Your task to perform on an android device: Go to location settings Image 0: 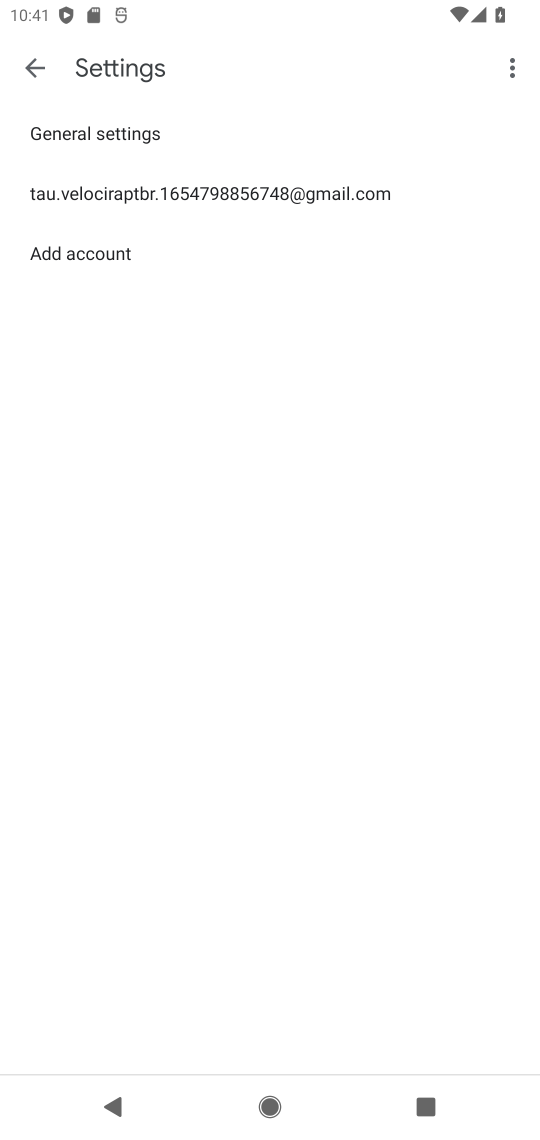
Step 0: click (26, 61)
Your task to perform on an android device: Go to location settings Image 1: 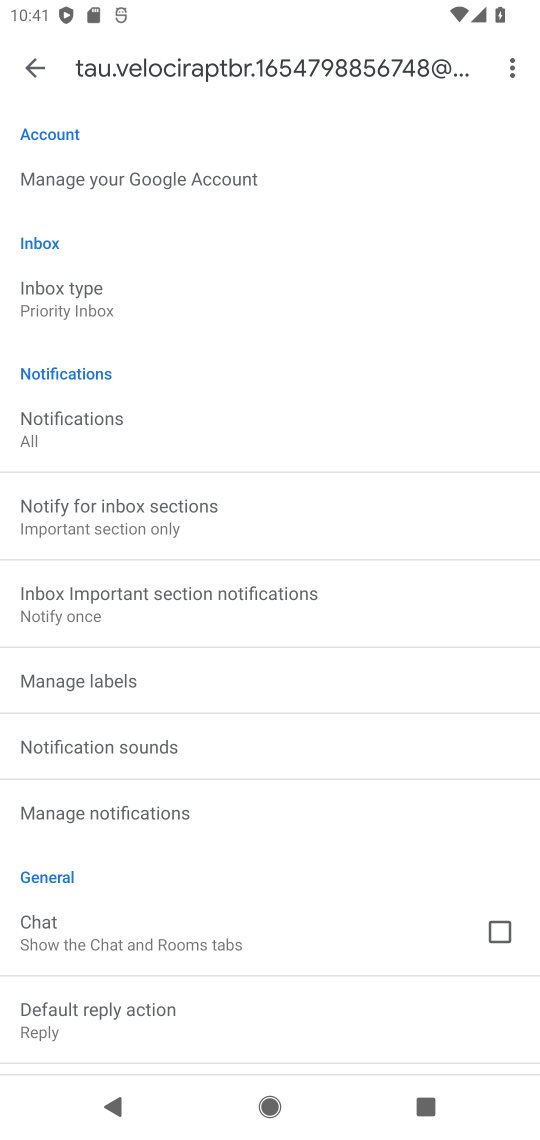
Step 1: drag from (176, 836) to (305, 141)
Your task to perform on an android device: Go to location settings Image 2: 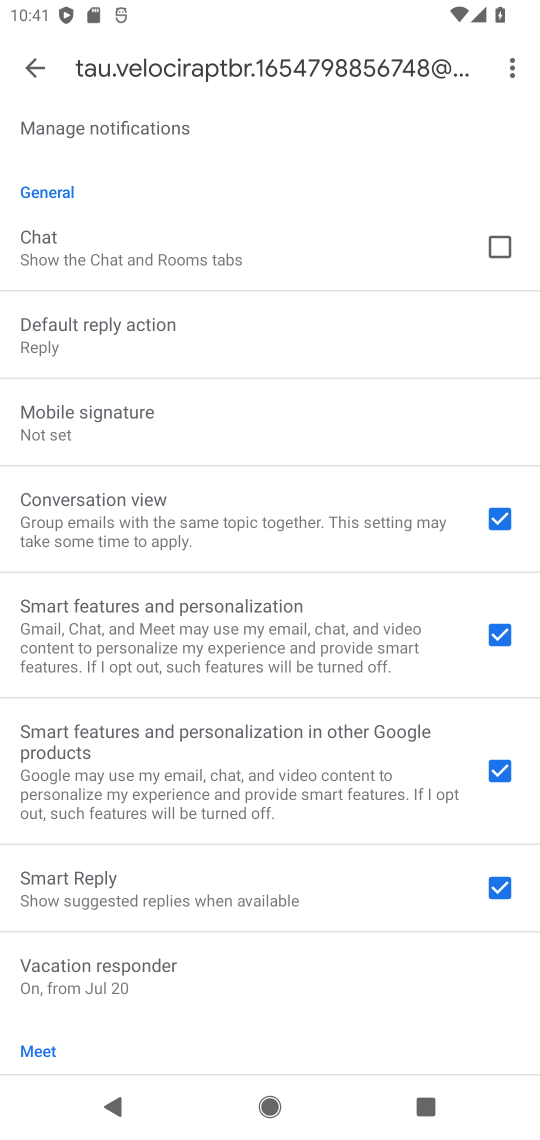
Step 2: drag from (234, 359) to (80, 1122)
Your task to perform on an android device: Go to location settings Image 3: 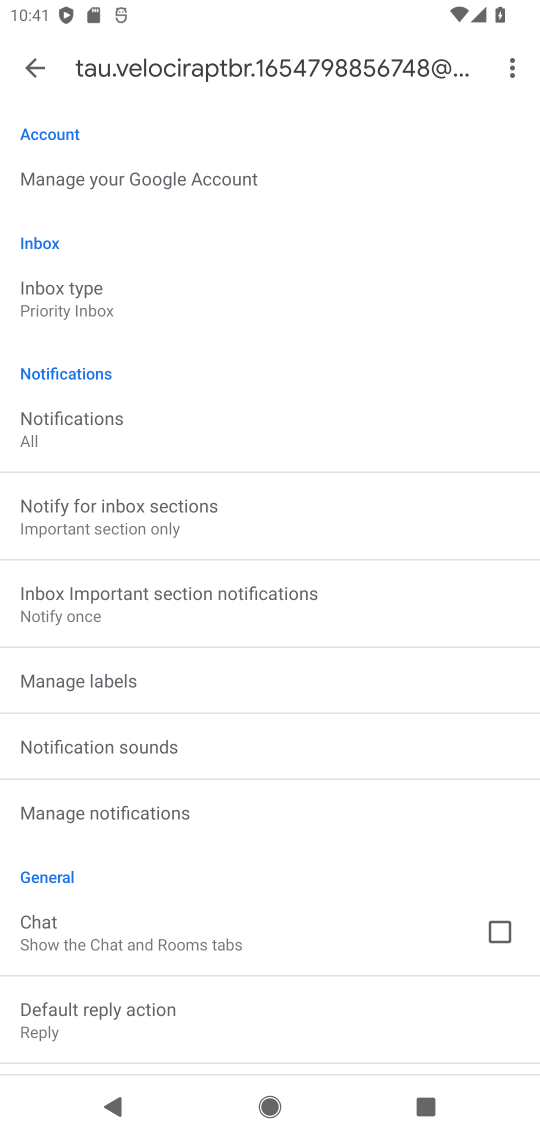
Step 3: drag from (316, 343) to (264, 968)
Your task to perform on an android device: Go to location settings Image 4: 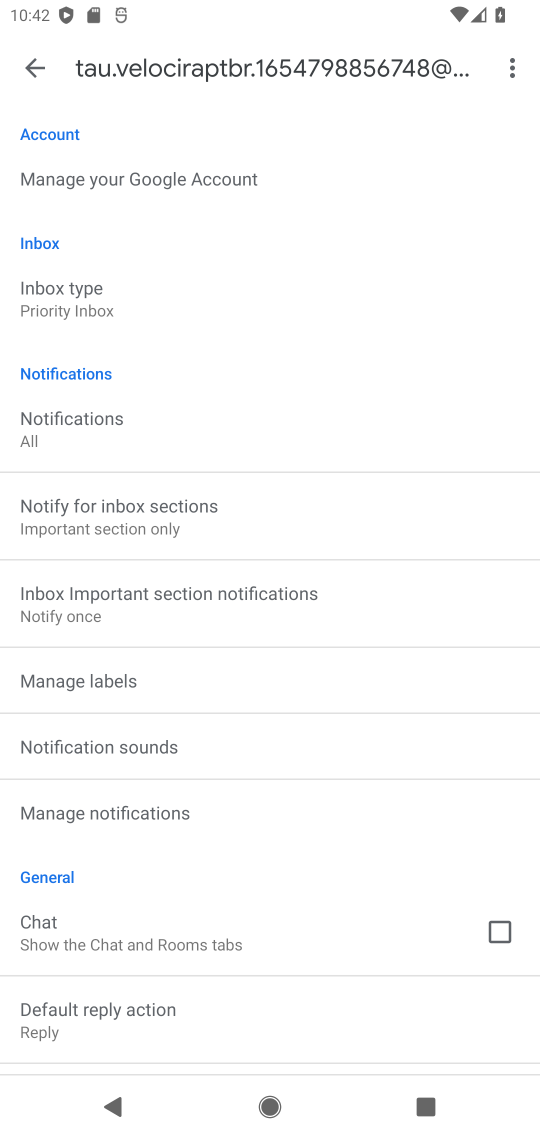
Step 4: drag from (126, 432) to (76, 1124)
Your task to perform on an android device: Go to location settings Image 5: 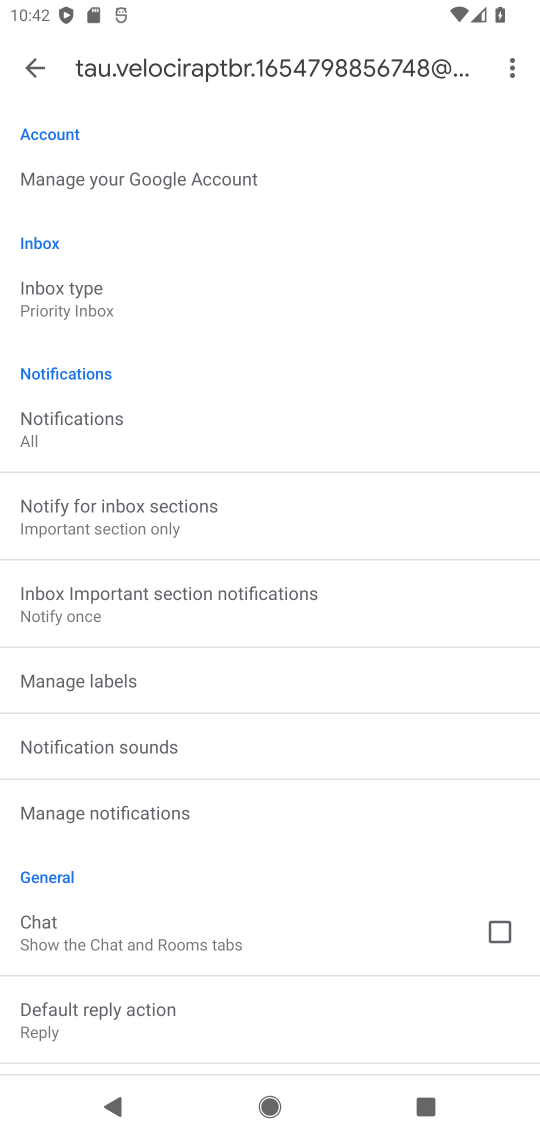
Step 5: drag from (240, 905) to (325, 296)
Your task to perform on an android device: Go to location settings Image 6: 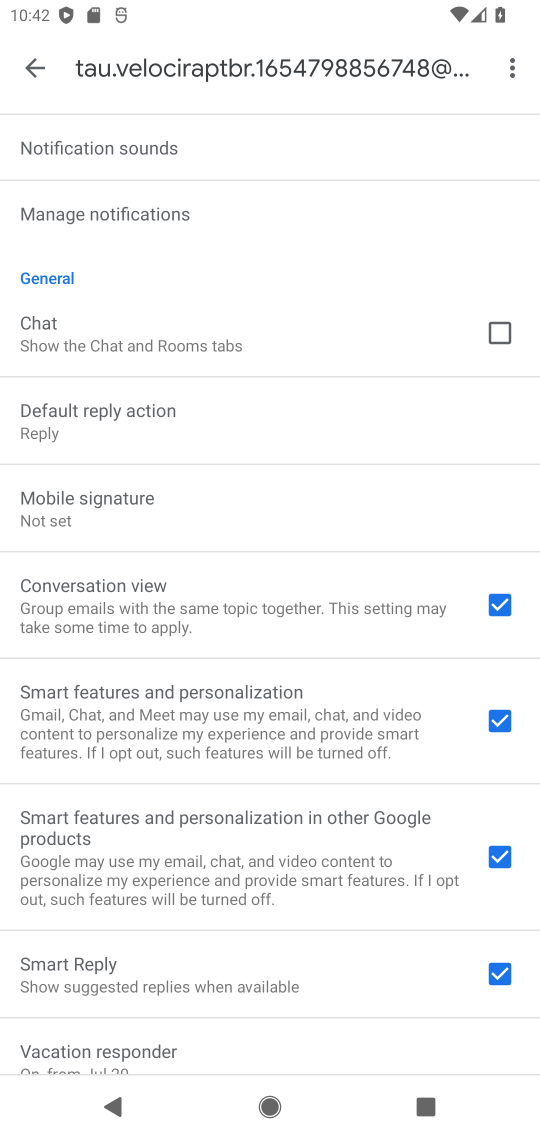
Step 6: press back button
Your task to perform on an android device: Go to location settings Image 7: 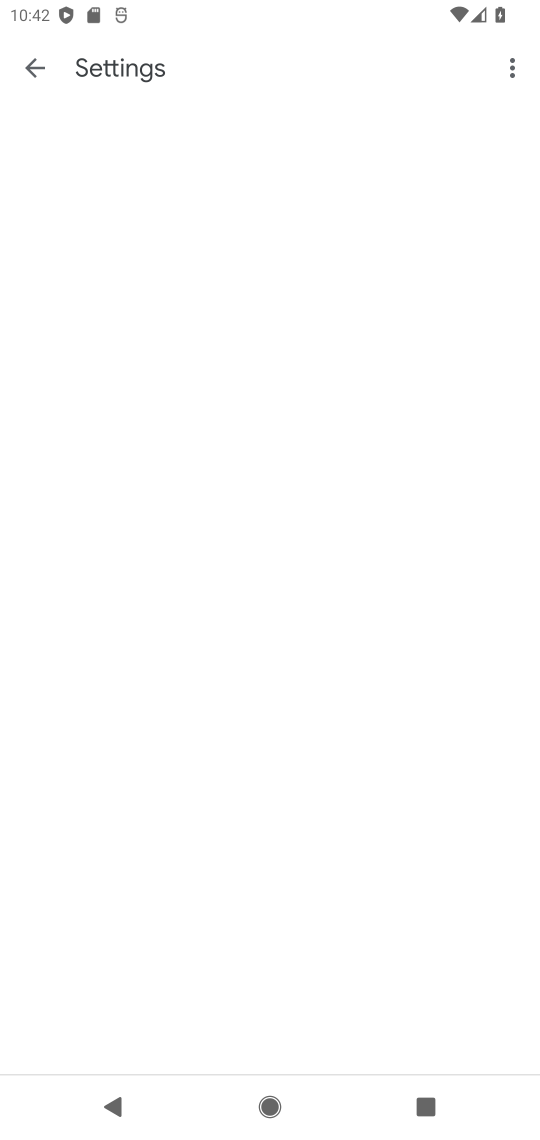
Step 7: press back button
Your task to perform on an android device: Go to location settings Image 8: 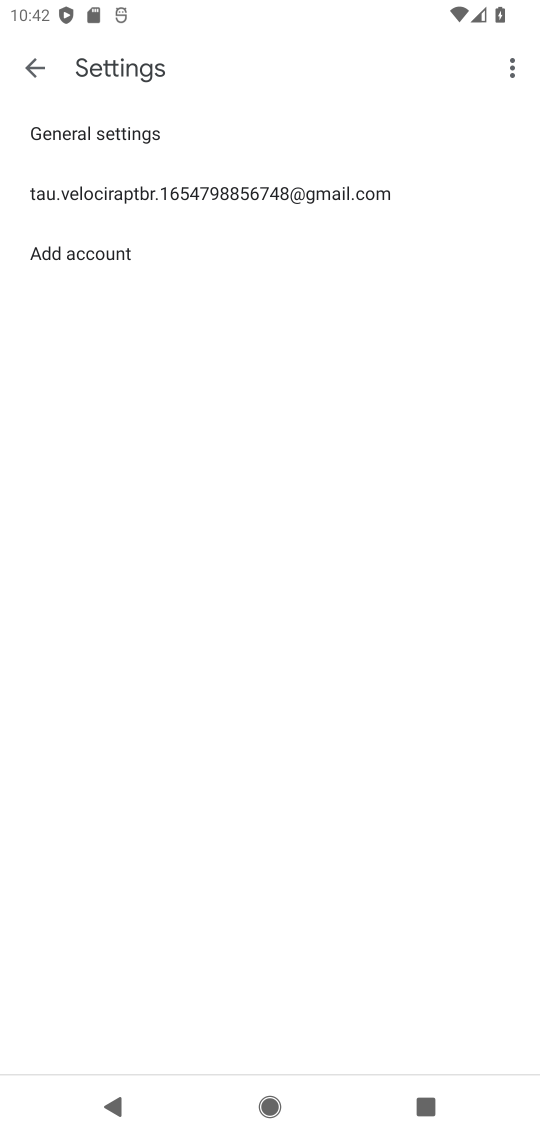
Step 8: press back button
Your task to perform on an android device: Go to location settings Image 9: 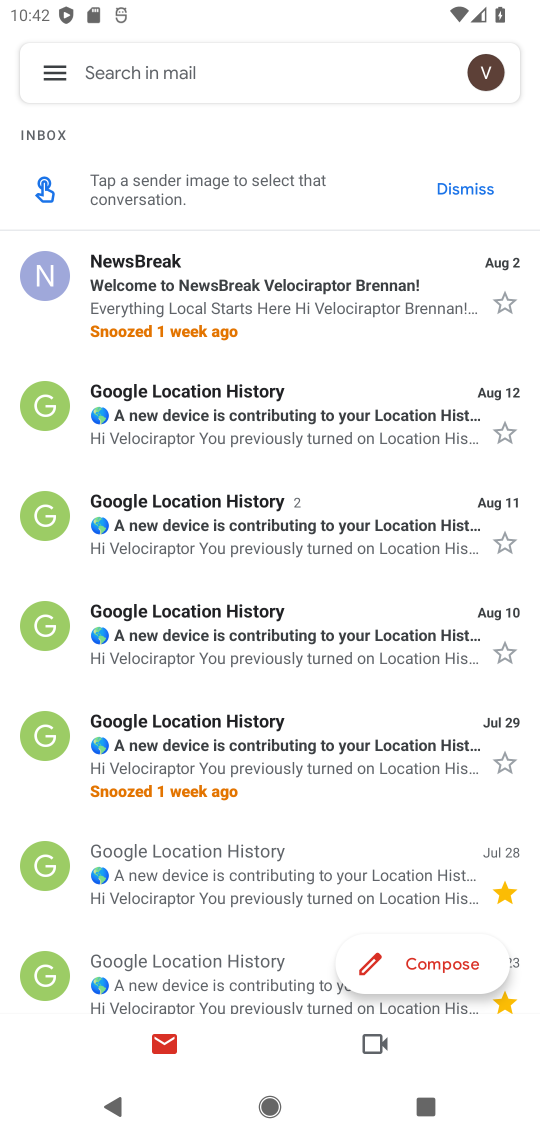
Step 9: press home button
Your task to perform on an android device: Go to location settings Image 10: 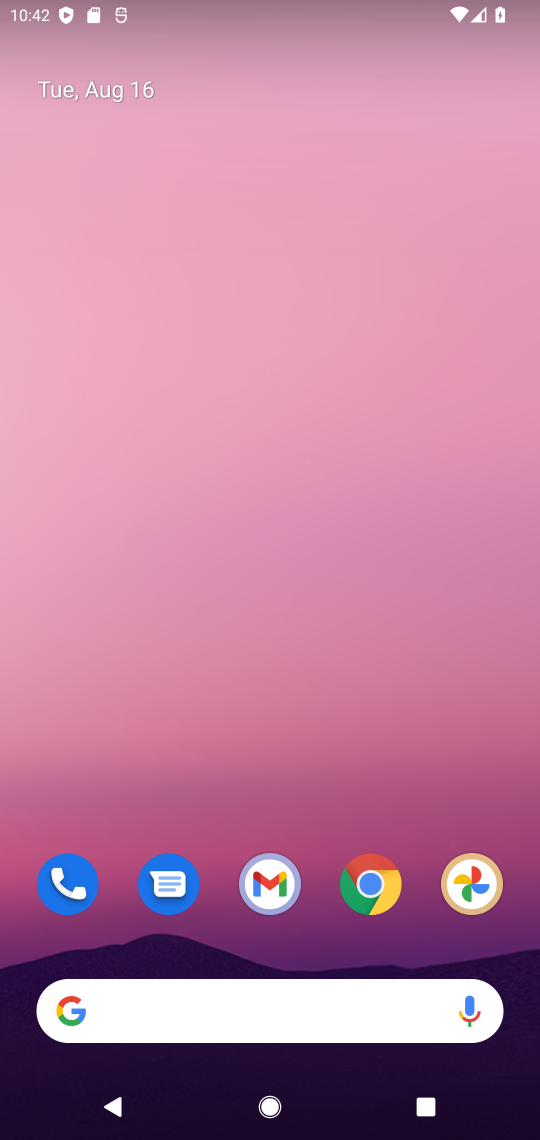
Step 10: drag from (268, 659) to (268, 377)
Your task to perform on an android device: Go to location settings Image 11: 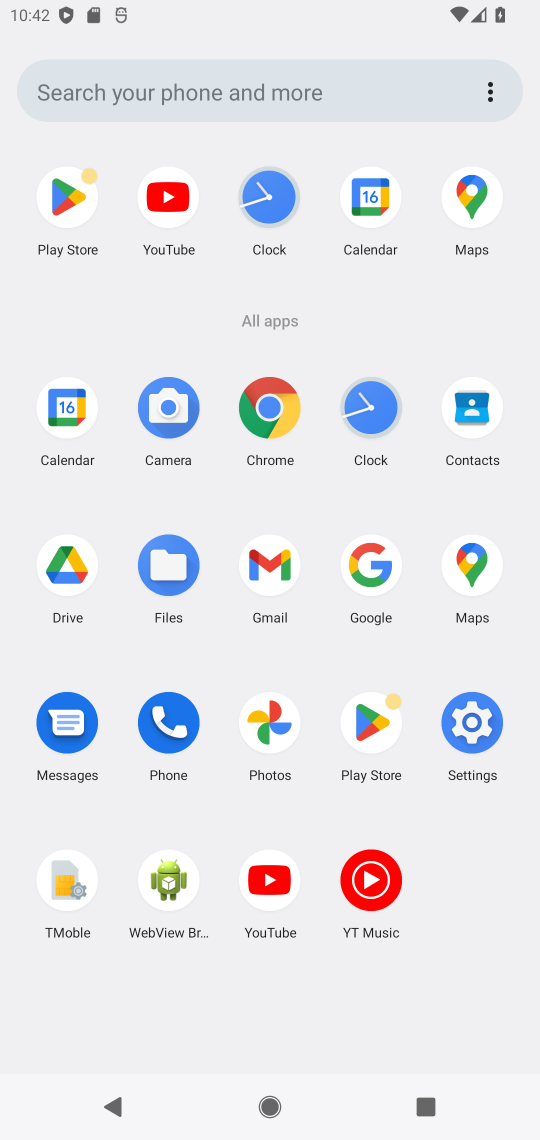
Step 11: click (464, 718)
Your task to perform on an android device: Go to location settings Image 12: 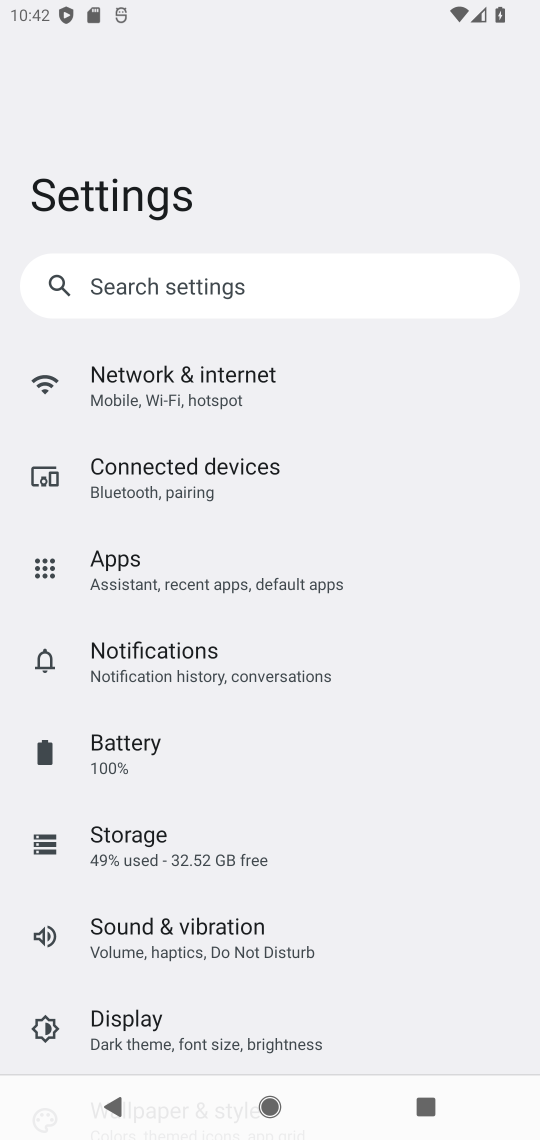
Step 12: click (191, 377)
Your task to perform on an android device: Go to location settings Image 13: 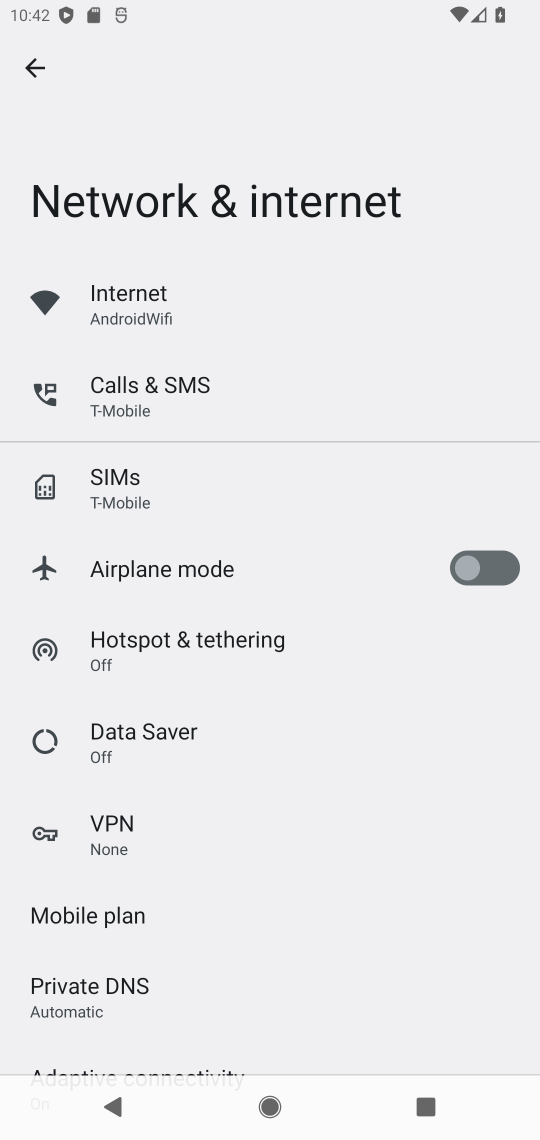
Step 13: click (46, 90)
Your task to perform on an android device: Go to location settings Image 14: 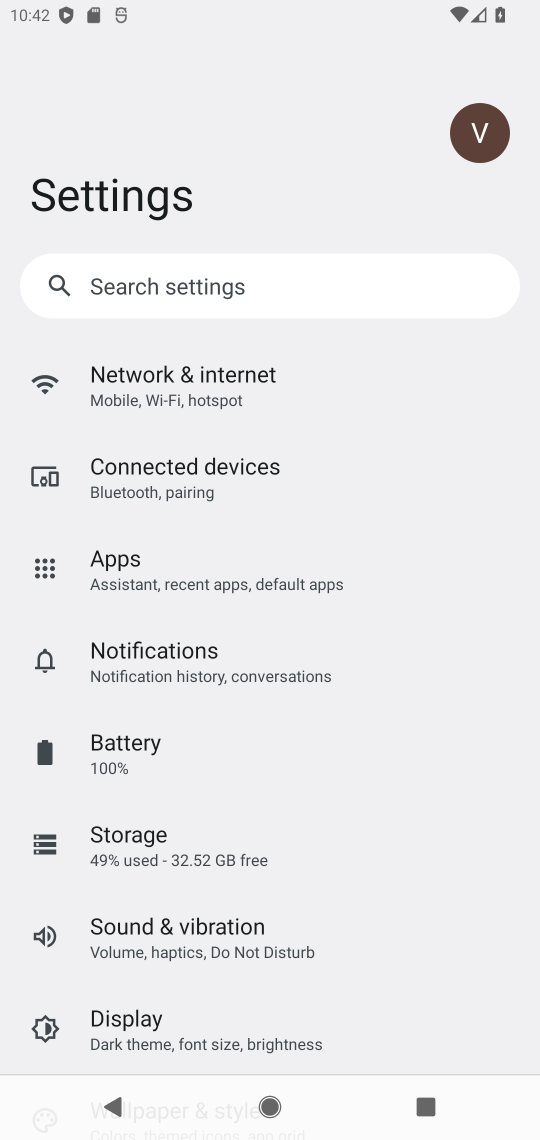
Step 14: click (30, 70)
Your task to perform on an android device: Go to location settings Image 15: 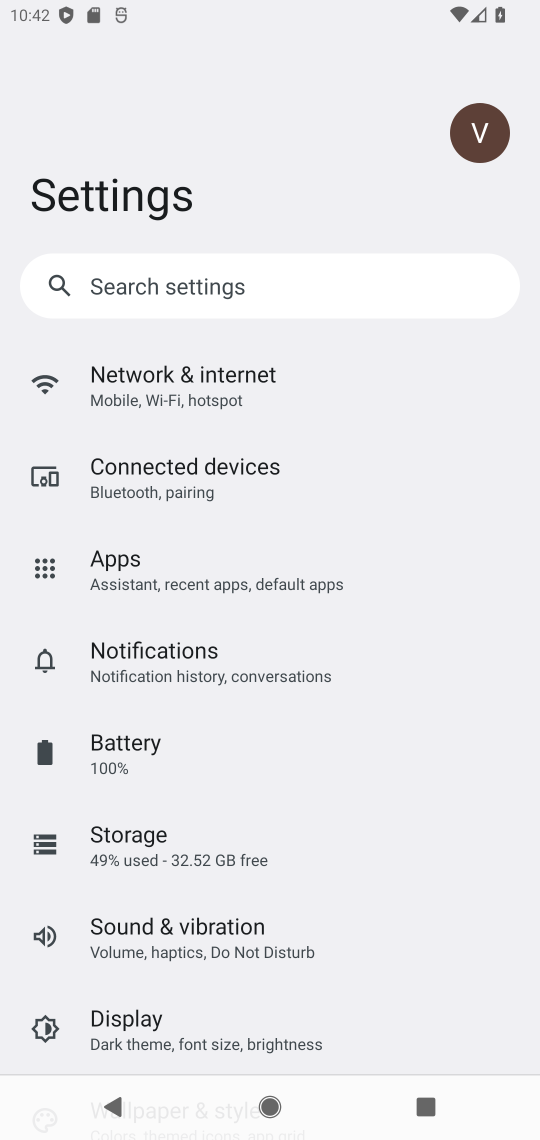
Step 15: drag from (157, 557) to (153, 393)
Your task to perform on an android device: Go to location settings Image 16: 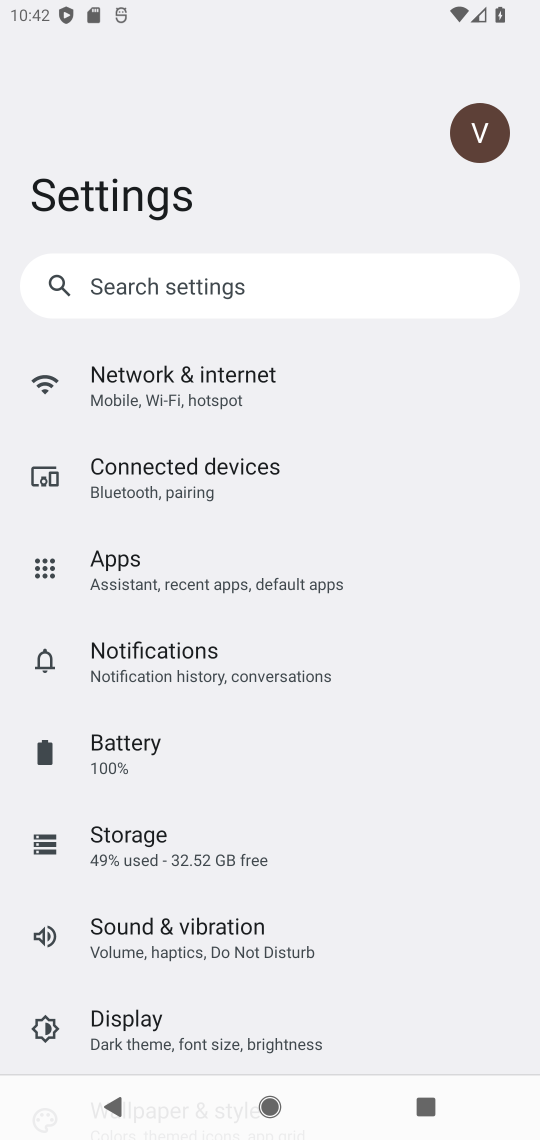
Step 16: drag from (215, 908) to (195, 372)
Your task to perform on an android device: Go to location settings Image 17: 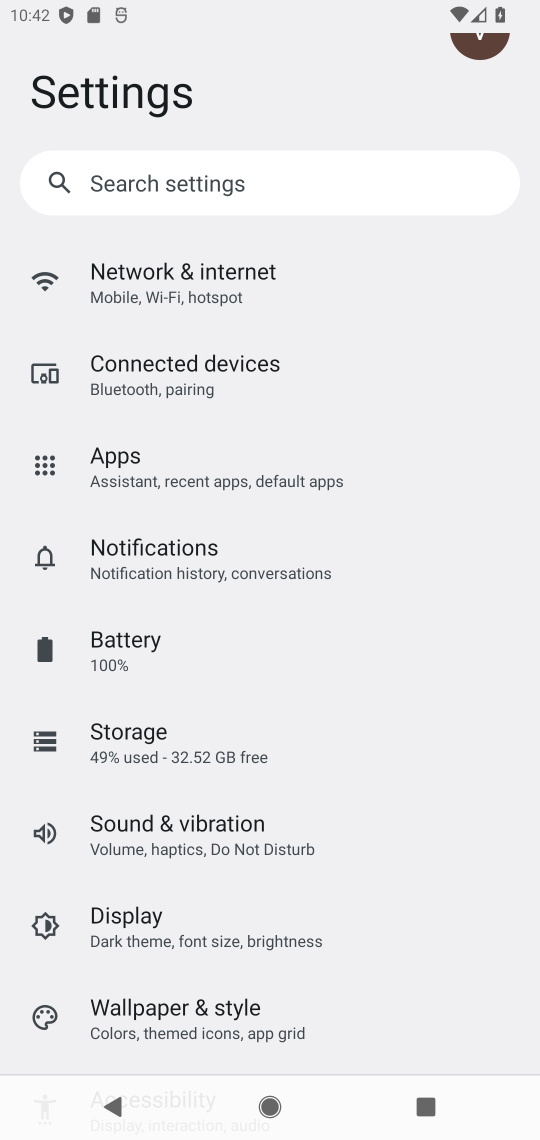
Step 17: click (181, 453)
Your task to perform on an android device: Go to location settings Image 18: 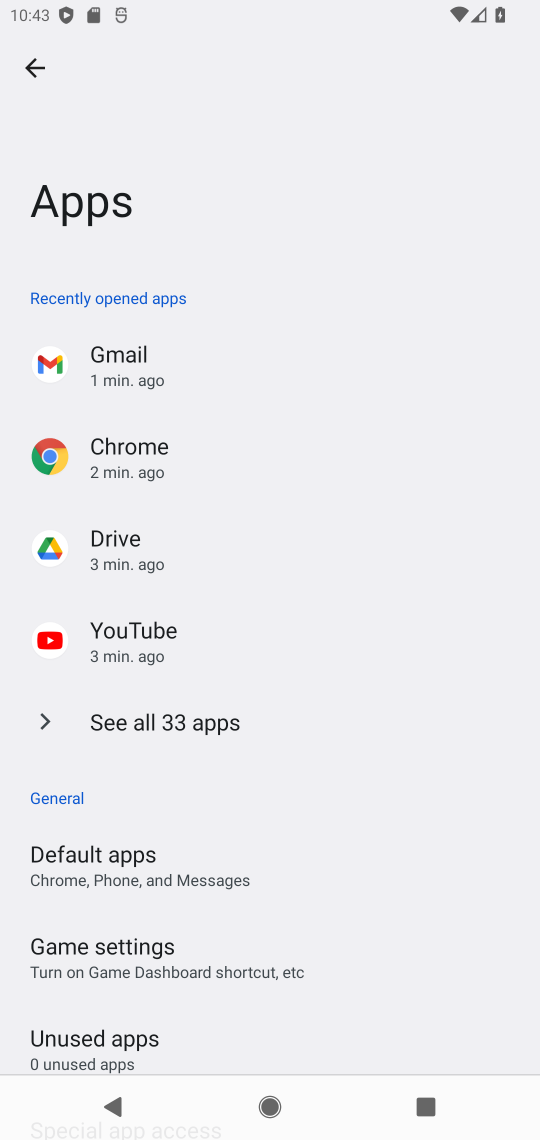
Step 18: click (27, 66)
Your task to perform on an android device: Go to location settings Image 19: 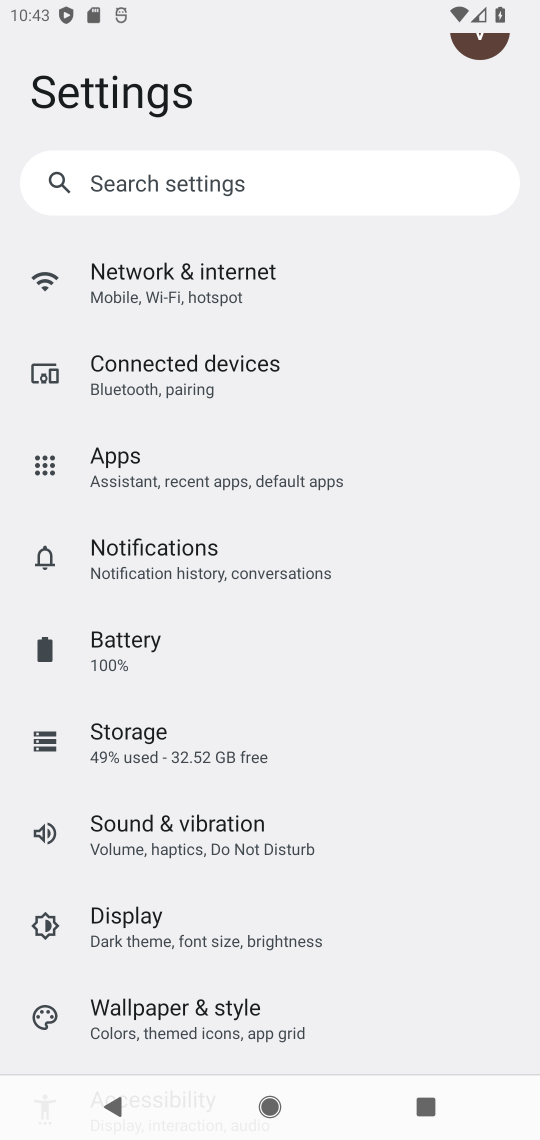
Step 19: drag from (205, 913) to (209, 260)
Your task to perform on an android device: Go to location settings Image 20: 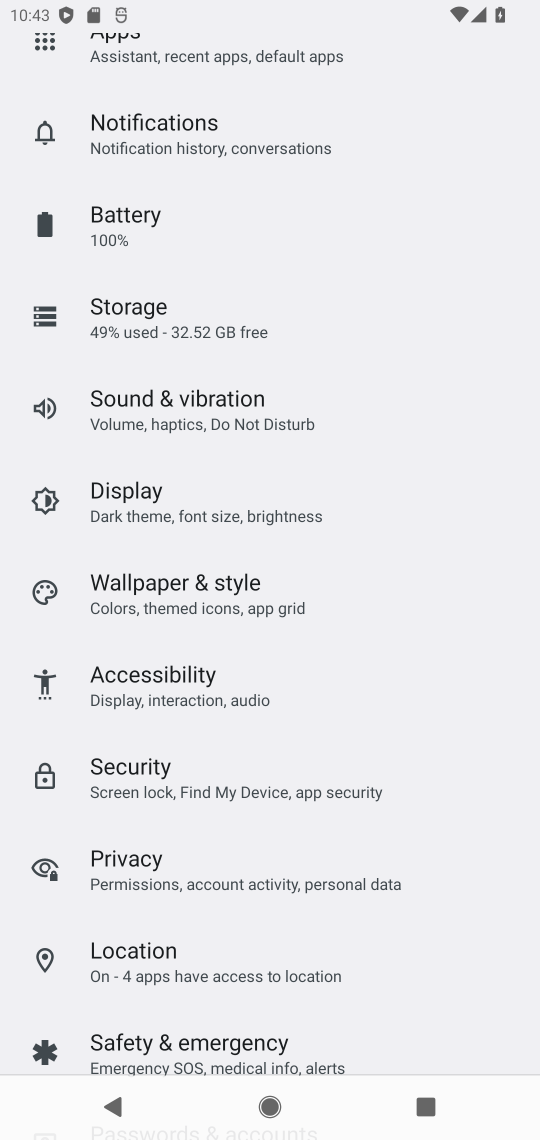
Step 20: click (135, 958)
Your task to perform on an android device: Go to location settings Image 21: 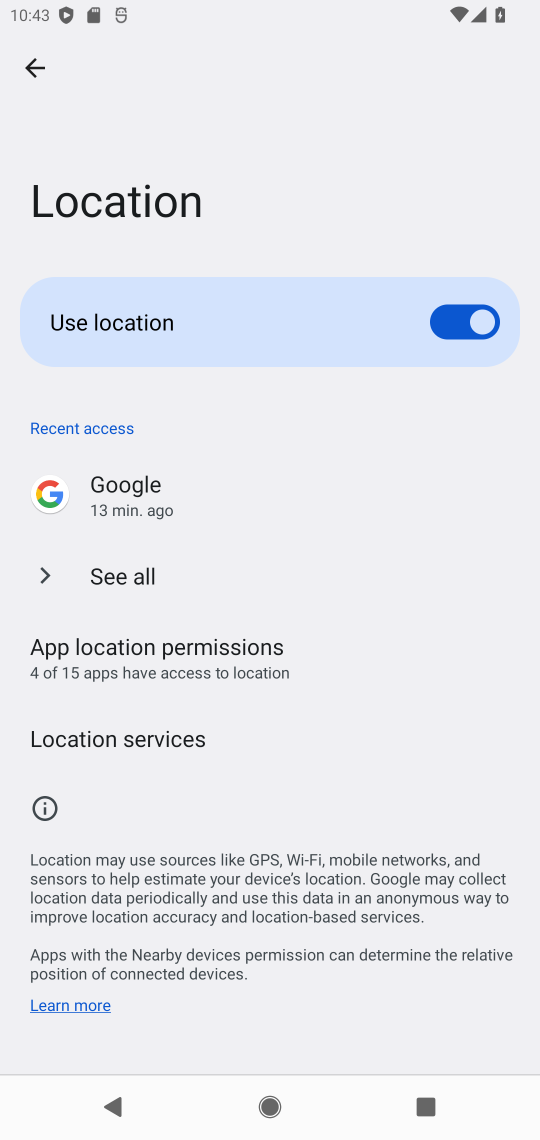
Step 21: task complete